Your task to perform on an android device: Go to sound settings Image 0: 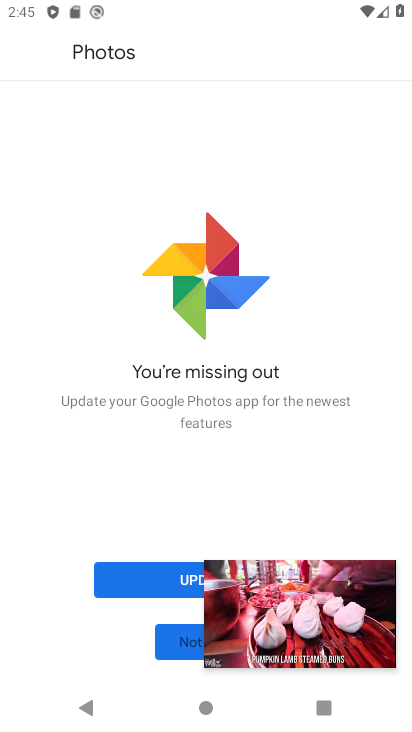
Step 0: click (300, 595)
Your task to perform on an android device: Go to sound settings Image 1: 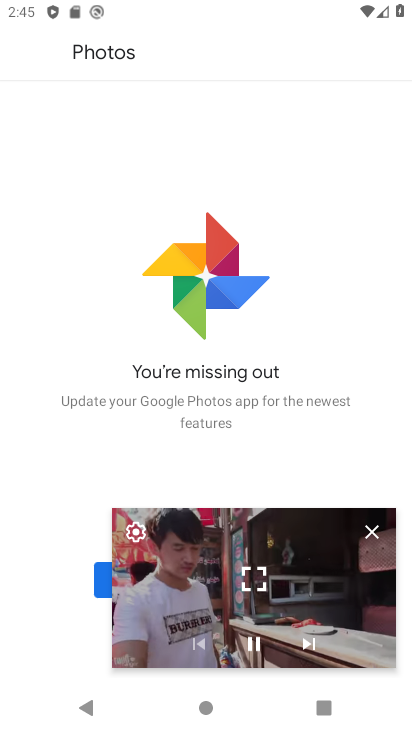
Step 1: click (372, 530)
Your task to perform on an android device: Go to sound settings Image 2: 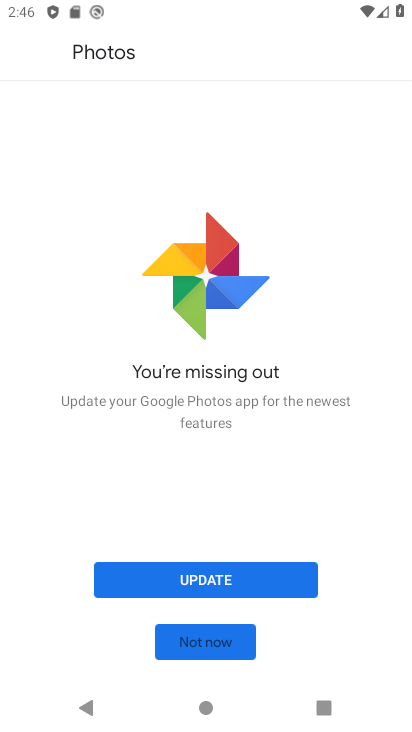
Step 2: press home button
Your task to perform on an android device: Go to sound settings Image 3: 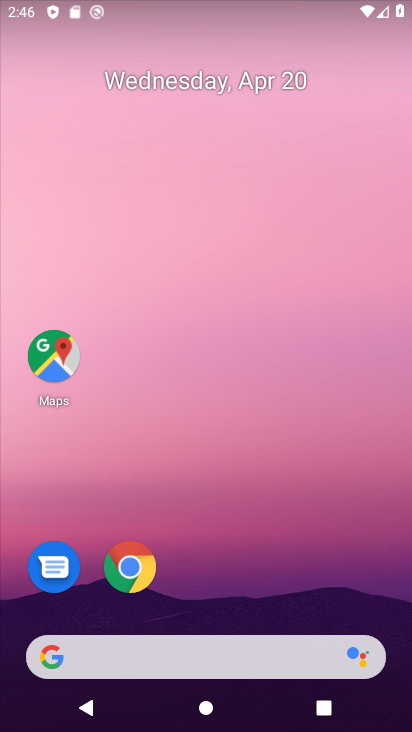
Step 3: drag from (199, 455) to (289, 59)
Your task to perform on an android device: Go to sound settings Image 4: 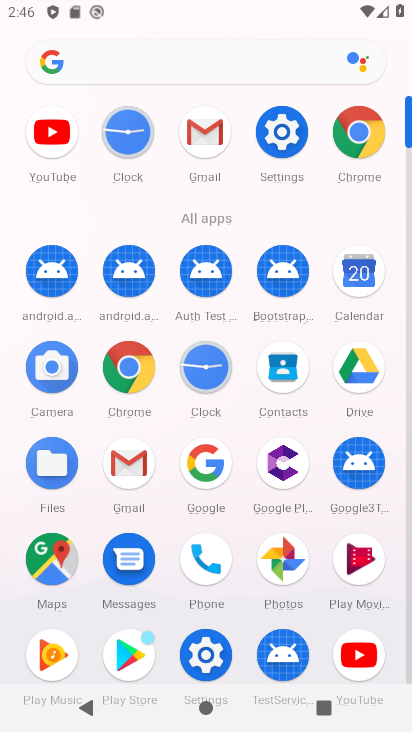
Step 4: click (299, 130)
Your task to perform on an android device: Go to sound settings Image 5: 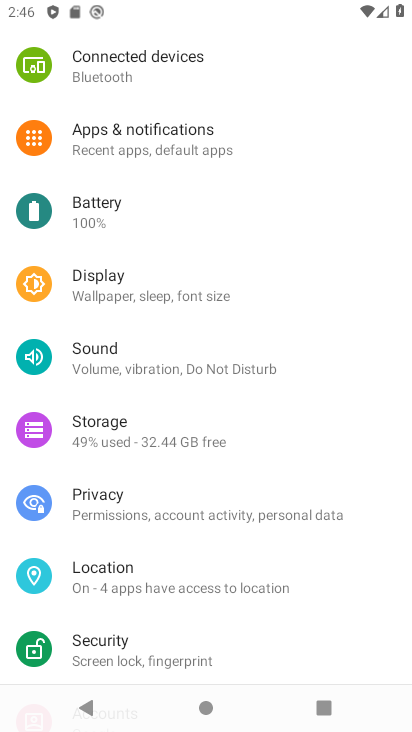
Step 5: click (132, 359)
Your task to perform on an android device: Go to sound settings Image 6: 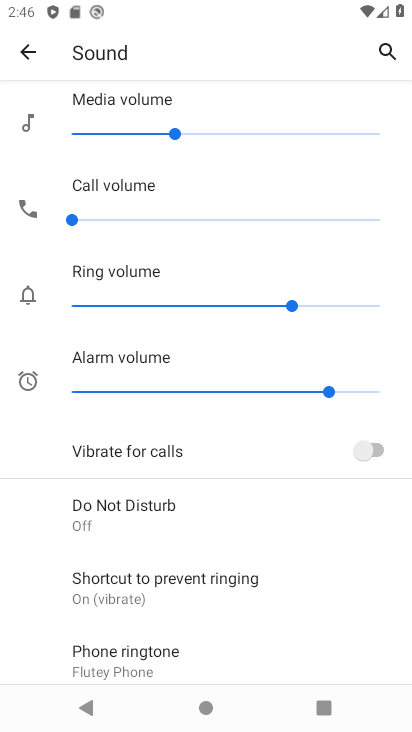
Step 6: task complete